Your task to perform on an android device: Search for sushi restaurants on Maps Image 0: 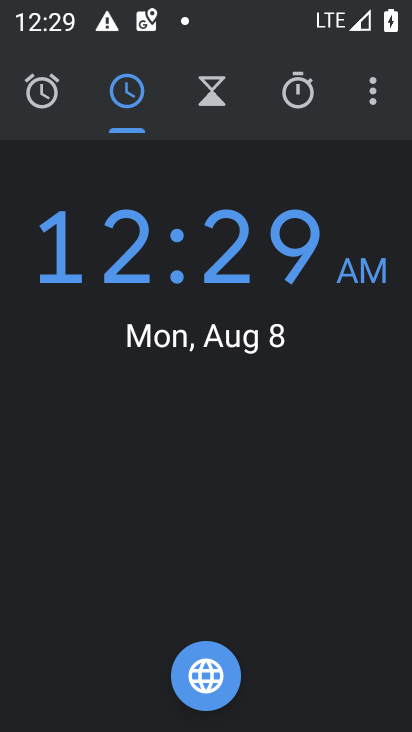
Step 0: press home button
Your task to perform on an android device: Search for sushi restaurants on Maps Image 1: 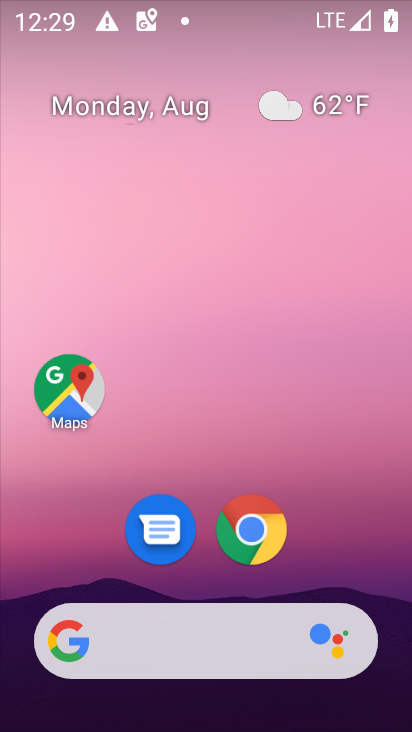
Step 1: click (58, 391)
Your task to perform on an android device: Search for sushi restaurants on Maps Image 2: 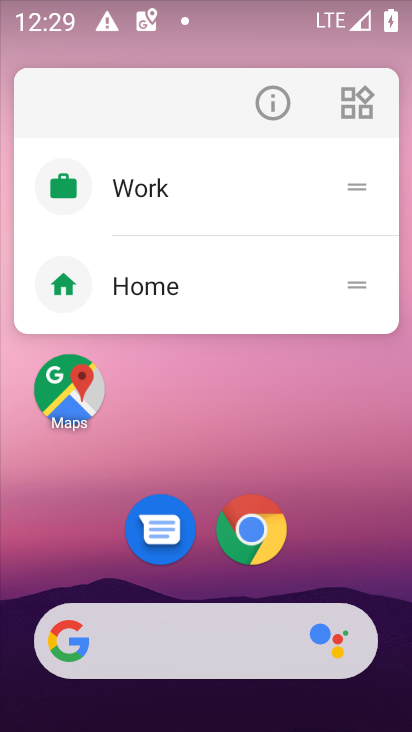
Step 2: click (64, 450)
Your task to perform on an android device: Search for sushi restaurants on Maps Image 3: 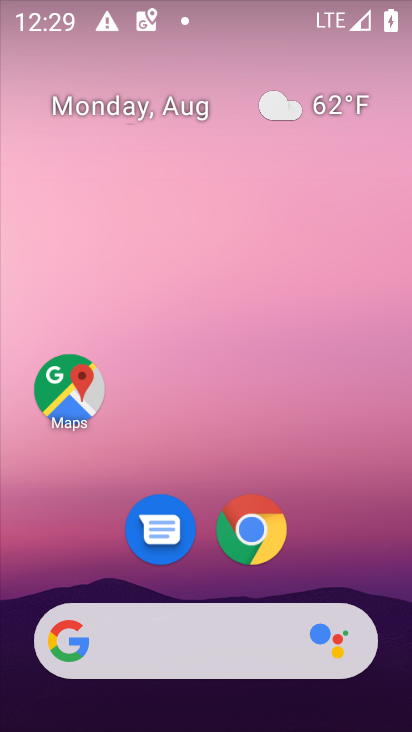
Step 3: click (68, 423)
Your task to perform on an android device: Search for sushi restaurants on Maps Image 4: 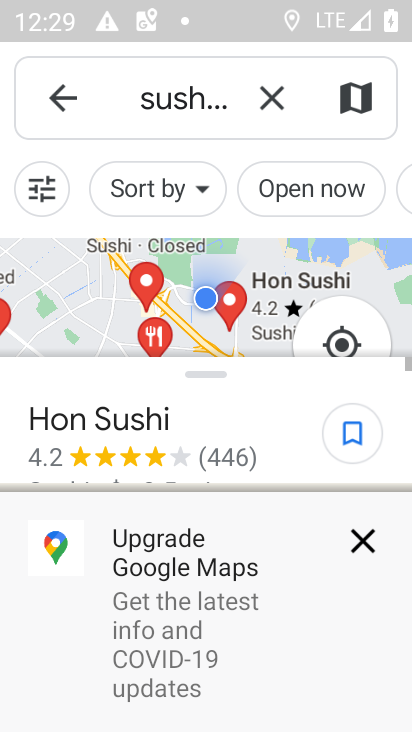
Step 4: click (366, 540)
Your task to perform on an android device: Search for sushi restaurants on Maps Image 5: 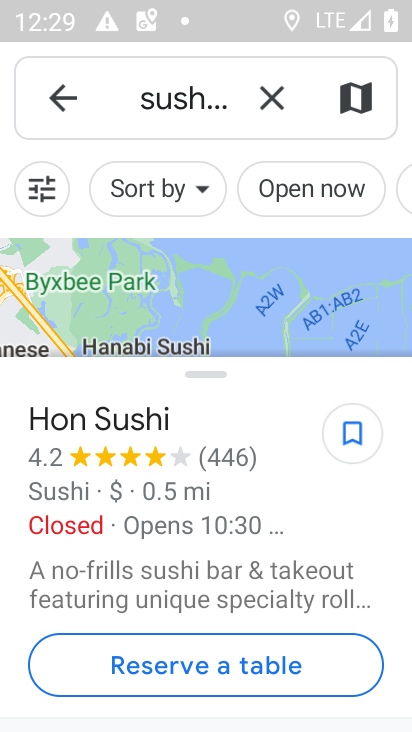
Step 5: task complete